Your task to perform on an android device: move a message to another label in the gmail app Image 0: 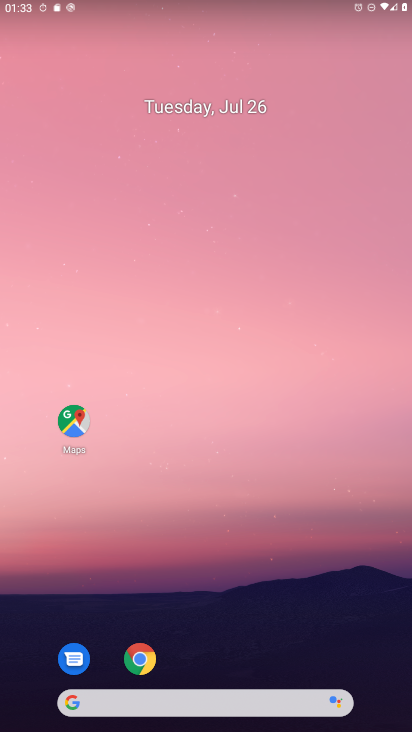
Step 0: press home button
Your task to perform on an android device: move a message to another label in the gmail app Image 1: 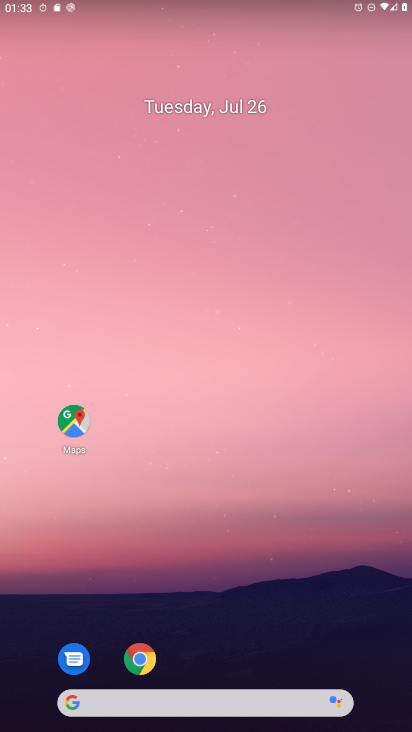
Step 1: press home button
Your task to perform on an android device: move a message to another label in the gmail app Image 2: 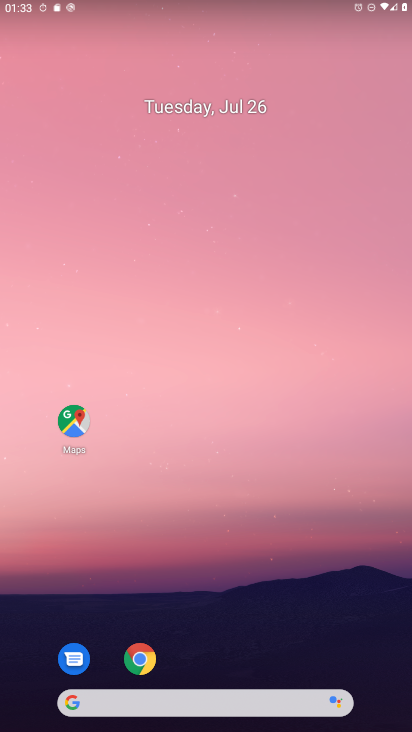
Step 2: drag from (322, 503) to (234, 15)
Your task to perform on an android device: move a message to another label in the gmail app Image 3: 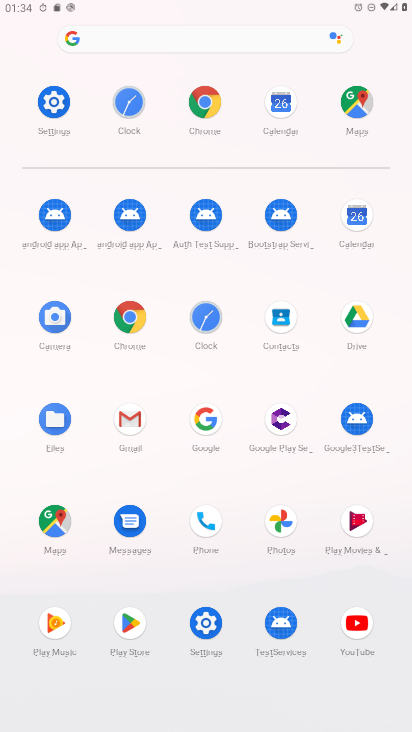
Step 3: click (143, 425)
Your task to perform on an android device: move a message to another label in the gmail app Image 4: 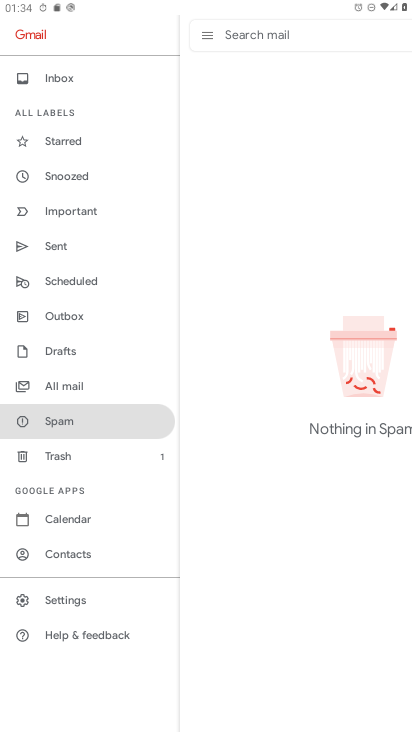
Step 4: task complete